Your task to perform on an android device: Go to location settings Image 0: 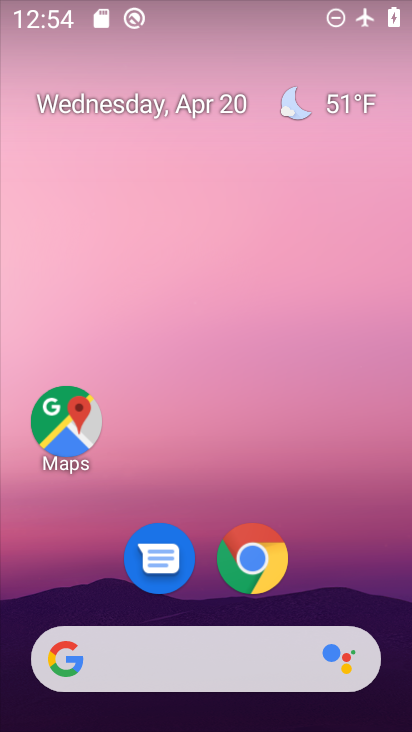
Step 0: drag from (354, 585) to (290, 170)
Your task to perform on an android device: Go to location settings Image 1: 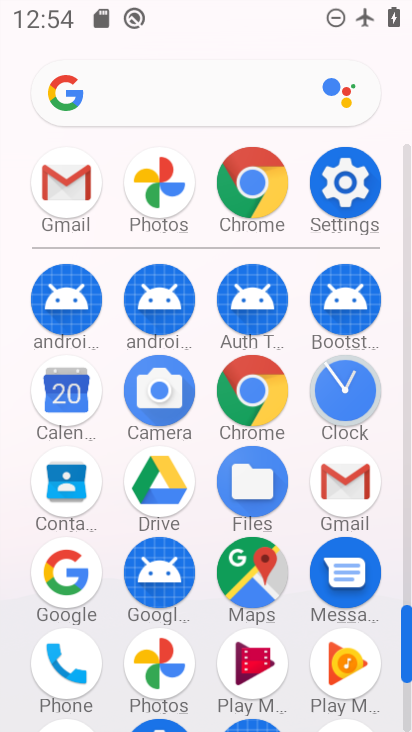
Step 1: click (404, 714)
Your task to perform on an android device: Go to location settings Image 2: 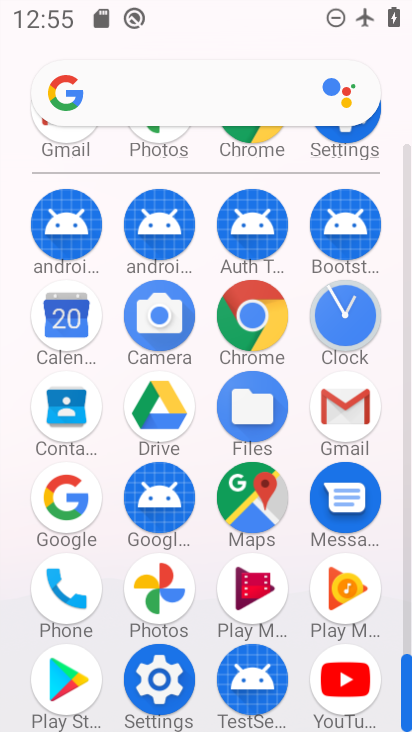
Step 2: click (158, 678)
Your task to perform on an android device: Go to location settings Image 3: 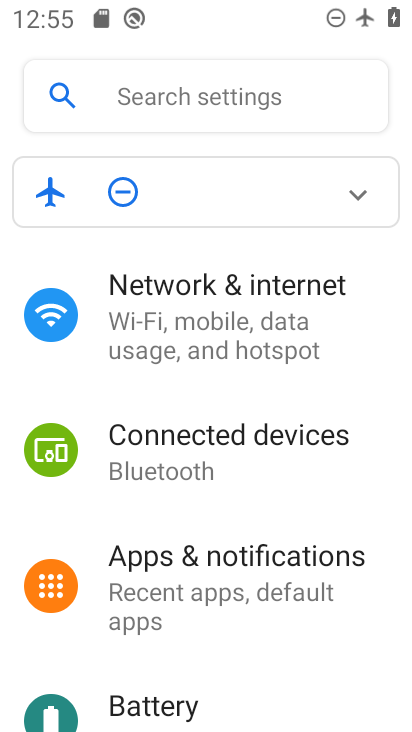
Step 3: drag from (357, 635) to (351, 344)
Your task to perform on an android device: Go to location settings Image 4: 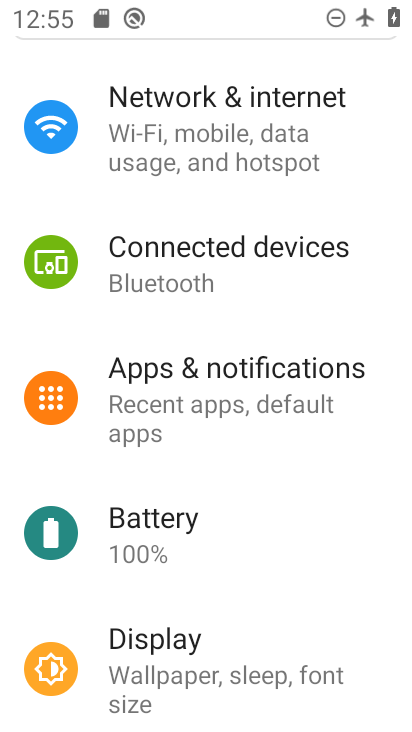
Step 4: drag from (291, 534) to (324, 259)
Your task to perform on an android device: Go to location settings Image 5: 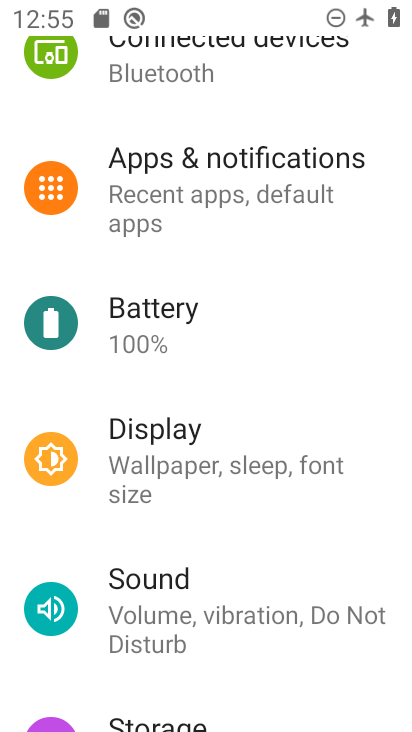
Step 5: drag from (332, 550) to (362, 242)
Your task to perform on an android device: Go to location settings Image 6: 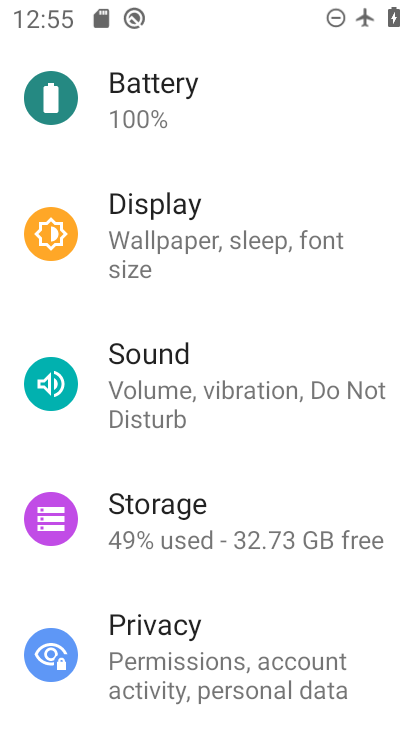
Step 6: drag from (364, 499) to (350, 210)
Your task to perform on an android device: Go to location settings Image 7: 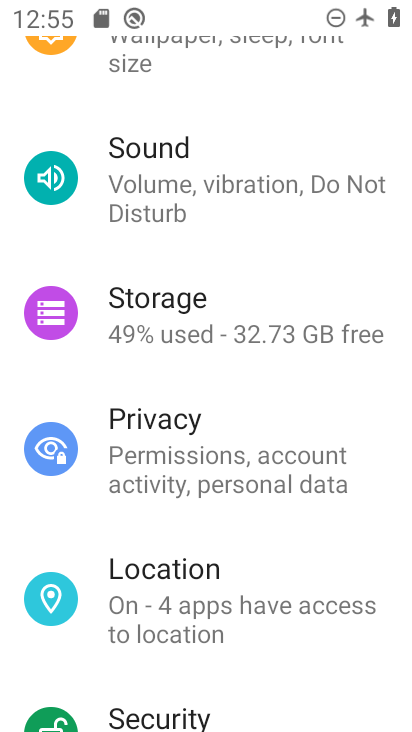
Step 7: click (175, 600)
Your task to perform on an android device: Go to location settings Image 8: 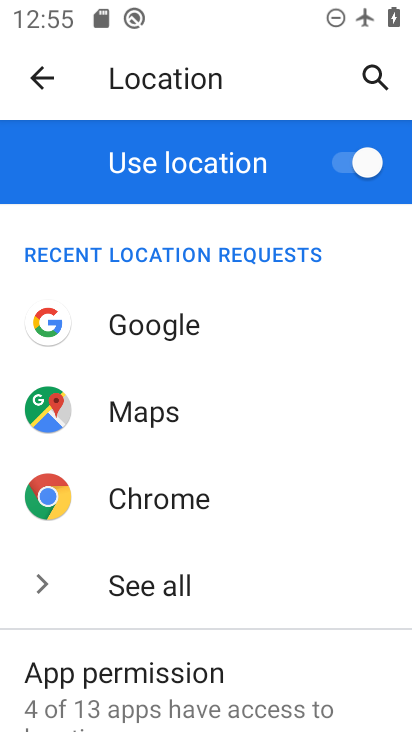
Step 8: drag from (268, 644) to (253, 404)
Your task to perform on an android device: Go to location settings Image 9: 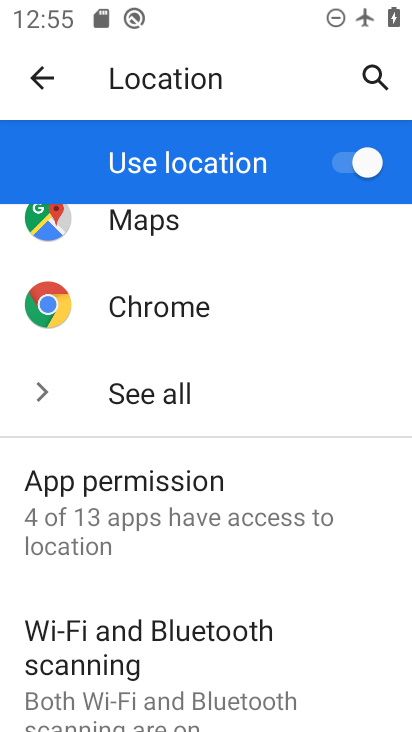
Step 9: drag from (297, 641) to (324, 419)
Your task to perform on an android device: Go to location settings Image 10: 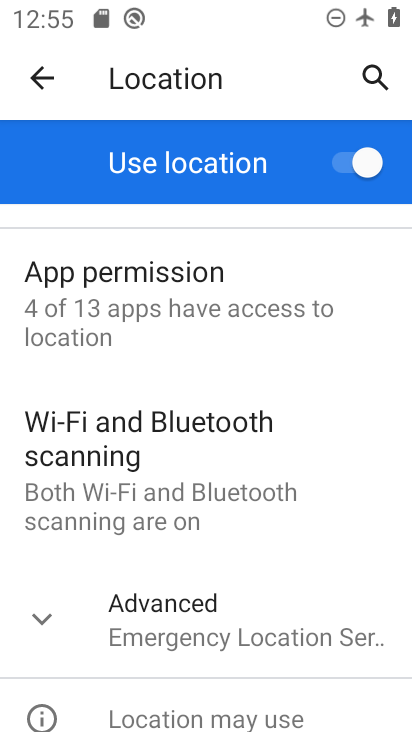
Step 10: click (42, 622)
Your task to perform on an android device: Go to location settings Image 11: 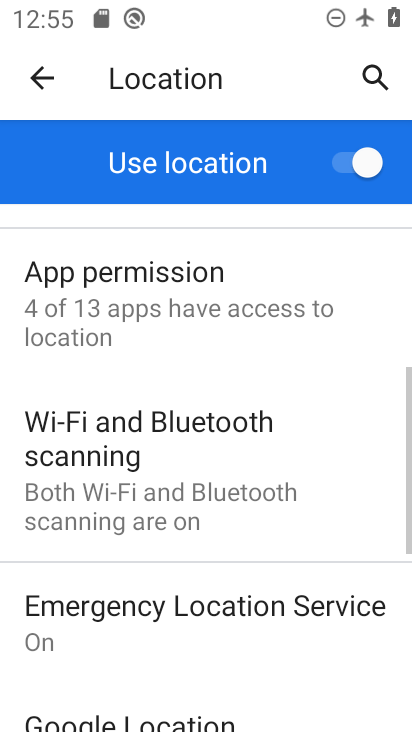
Step 11: task complete